Your task to perform on an android device: Add macbook to the cart on bestbuy.com Image 0: 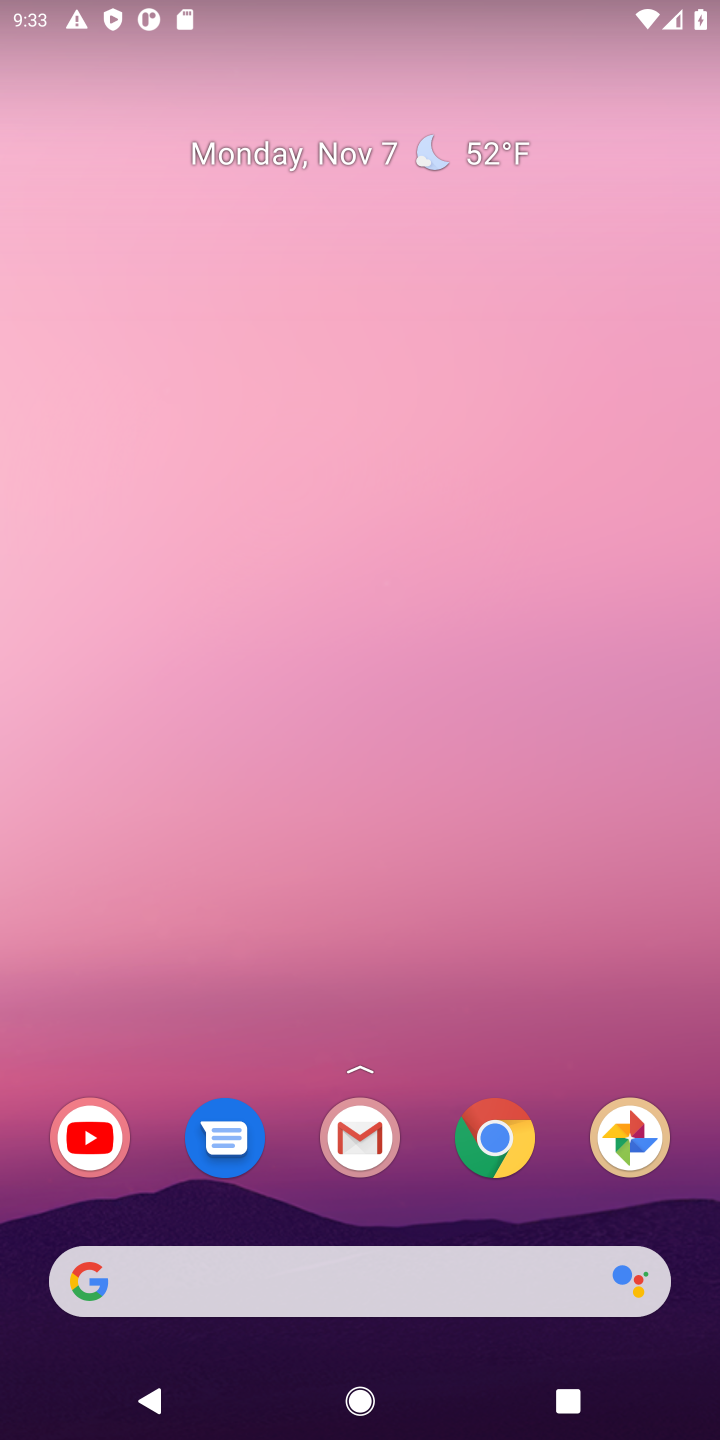
Step 0: click (500, 1162)
Your task to perform on an android device: Add macbook to the cart on bestbuy.com Image 1: 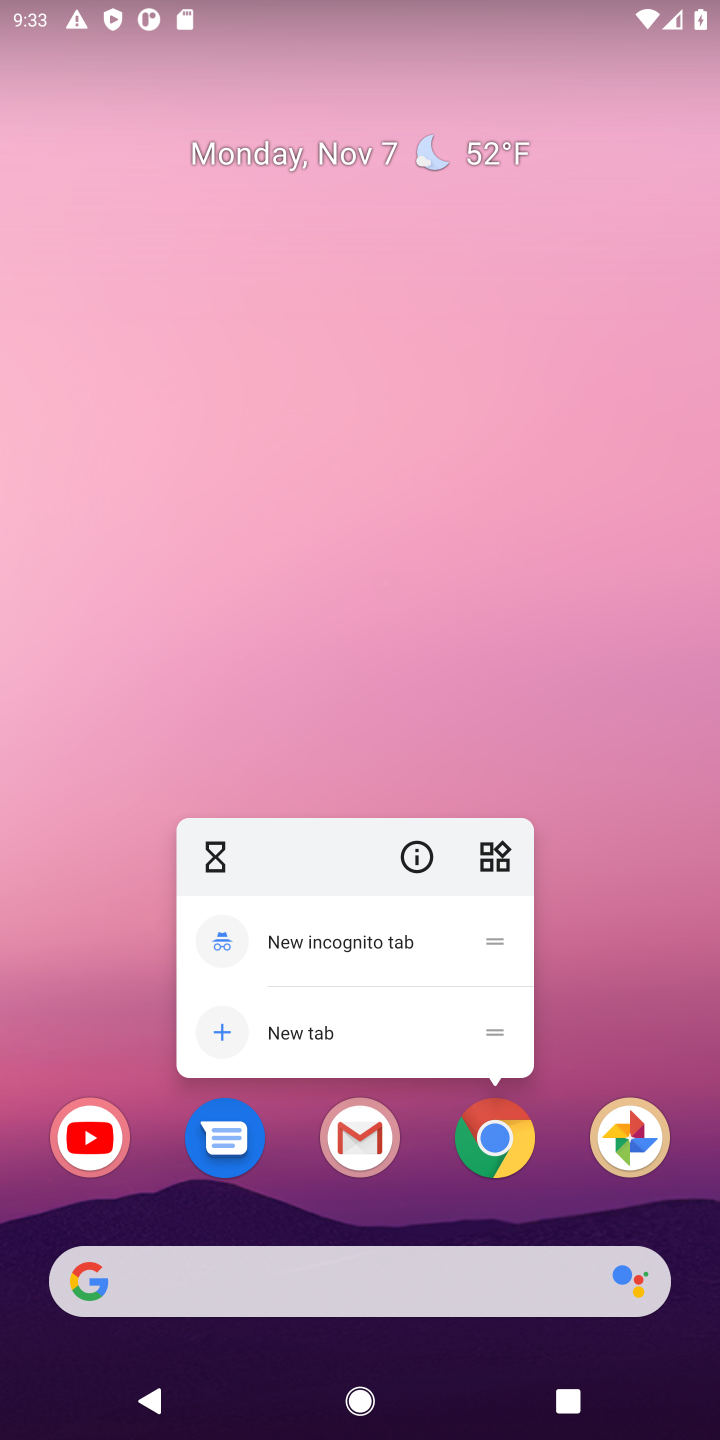
Step 1: click (514, 1127)
Your task to perform on an android device: Add macbook to the cart on bestbuy.com Image 2: 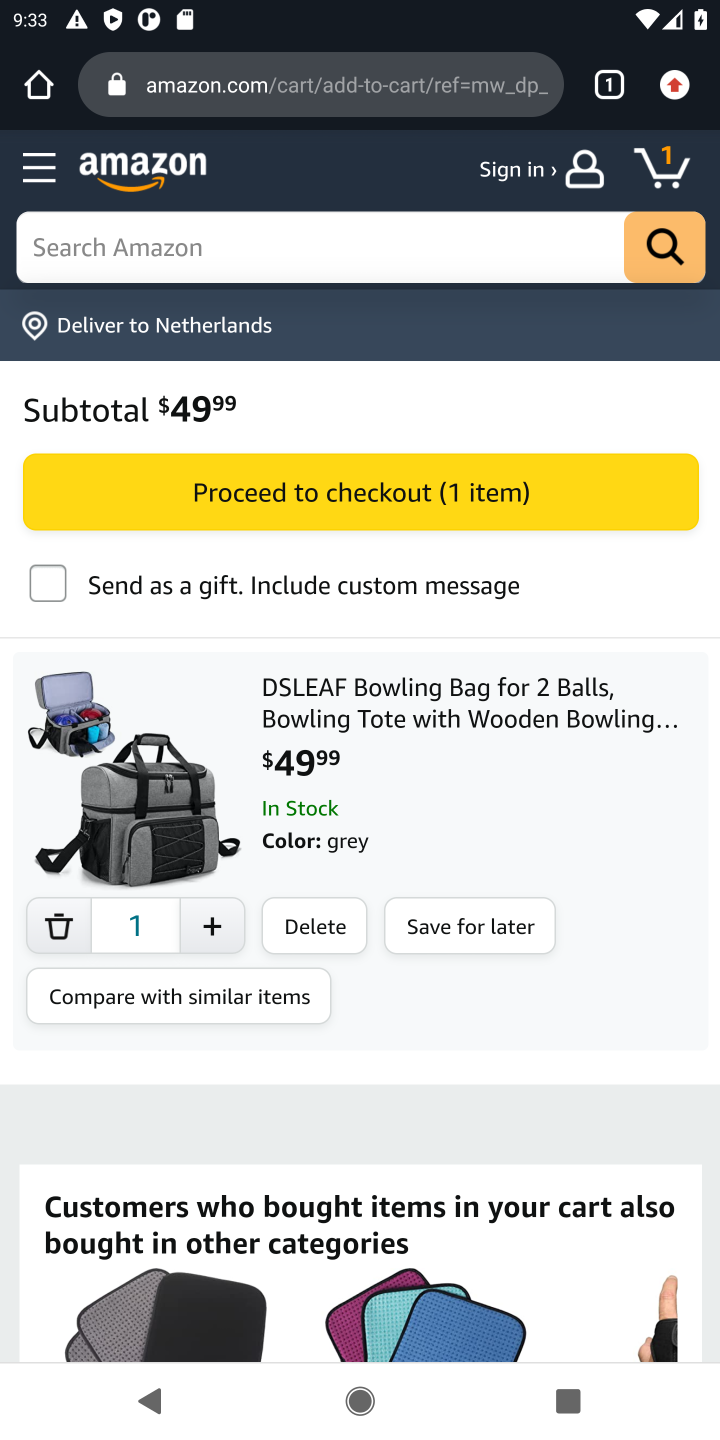
Step 2: click (134, 218)
Your task to perform on an android device: Add macbook to the cart on bestbuy.com Image 3: 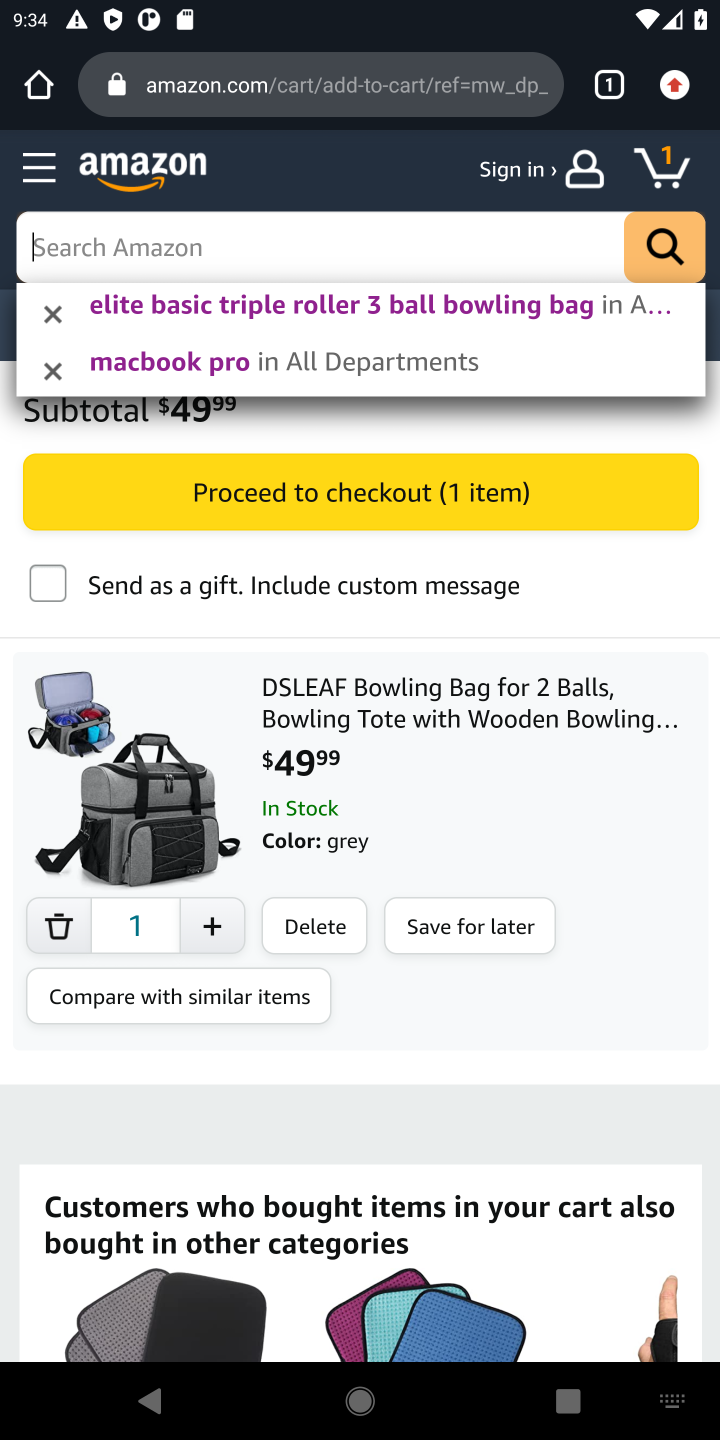
Step 3: type "macbook"
Your task to perform on an android device: Add macbook to the cart on bestbuy.com Image 4: 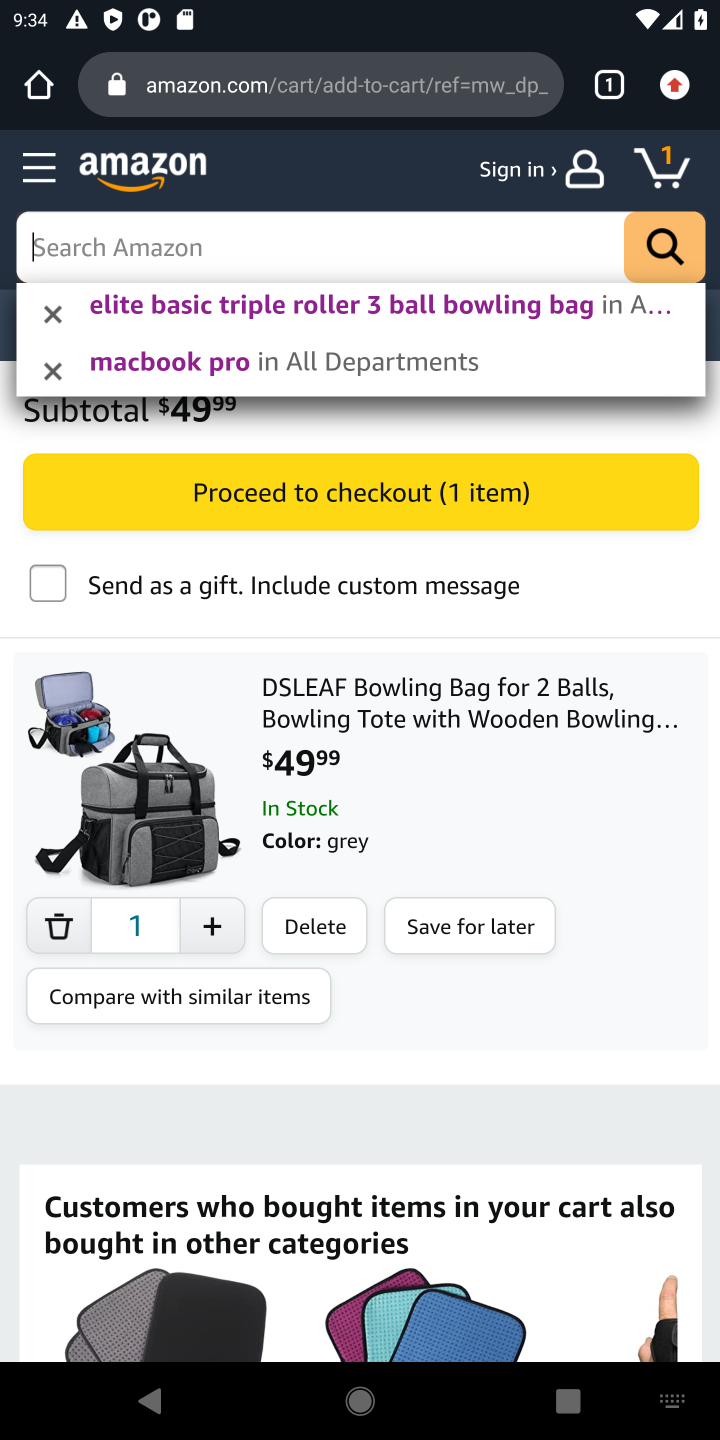
Step 4: click (231, 90)
Your task to perform on an android device: Add macbook to the cart on bestbuy.com Image 5: 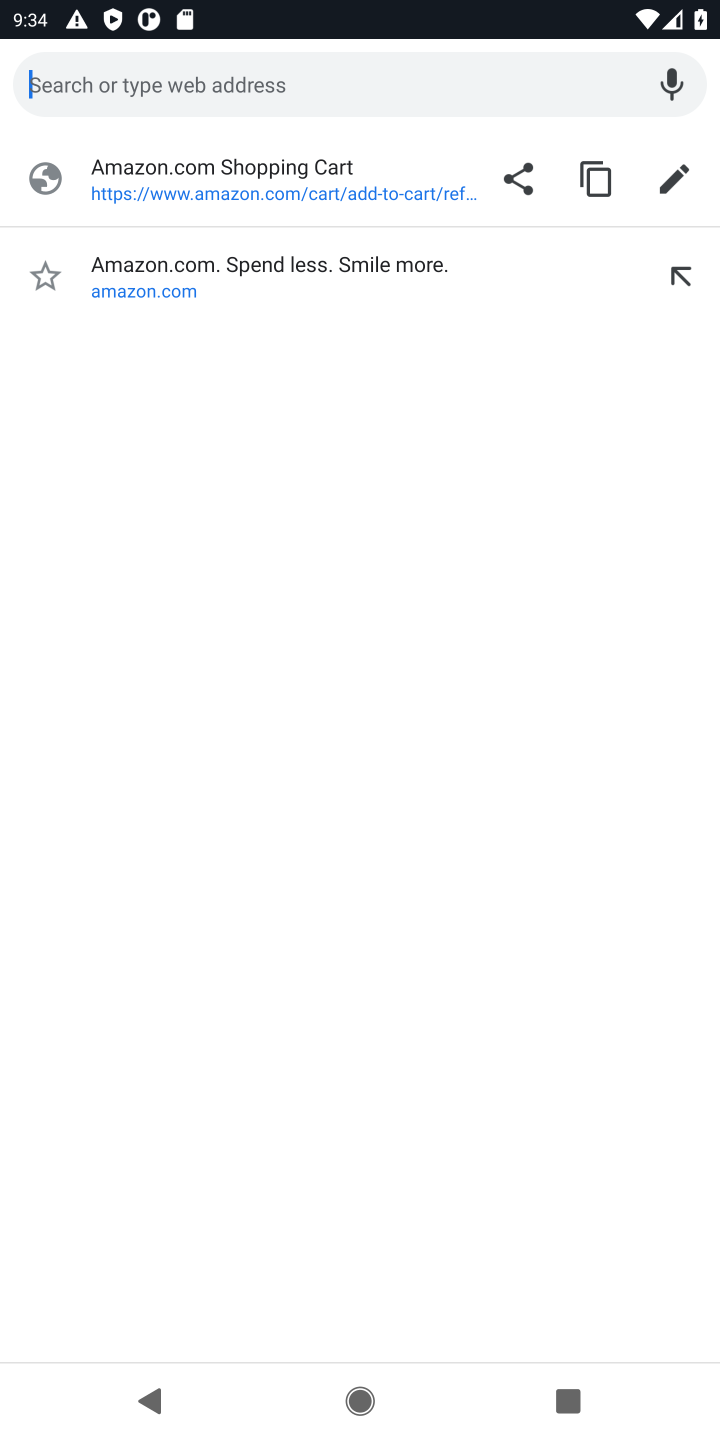
Step 5: type "bestbuy"
Your task to perform on an android device: Add macbook to the cart on bestbuy.com Image 6: 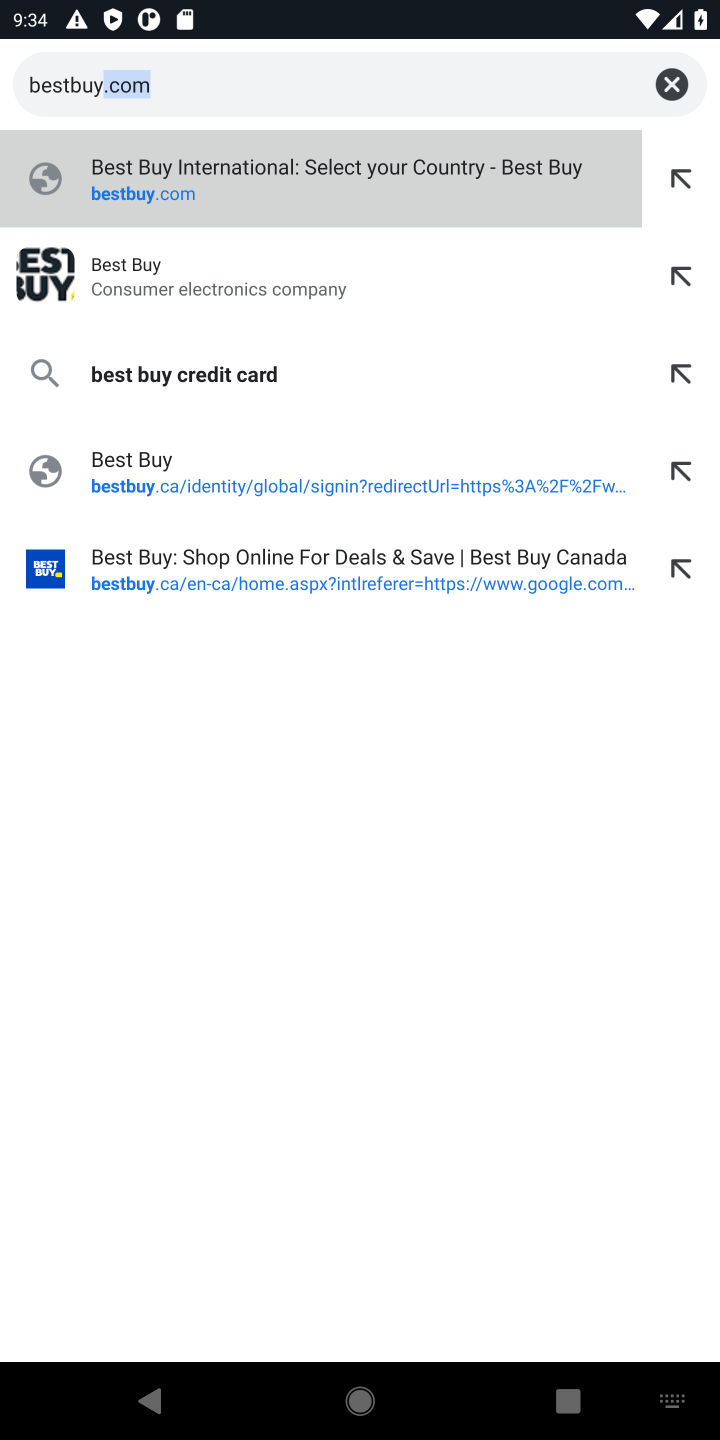
Step 6: type ""
Your task to perform on an android device: Add macbook to the cart on bestbuy.com Image 7: 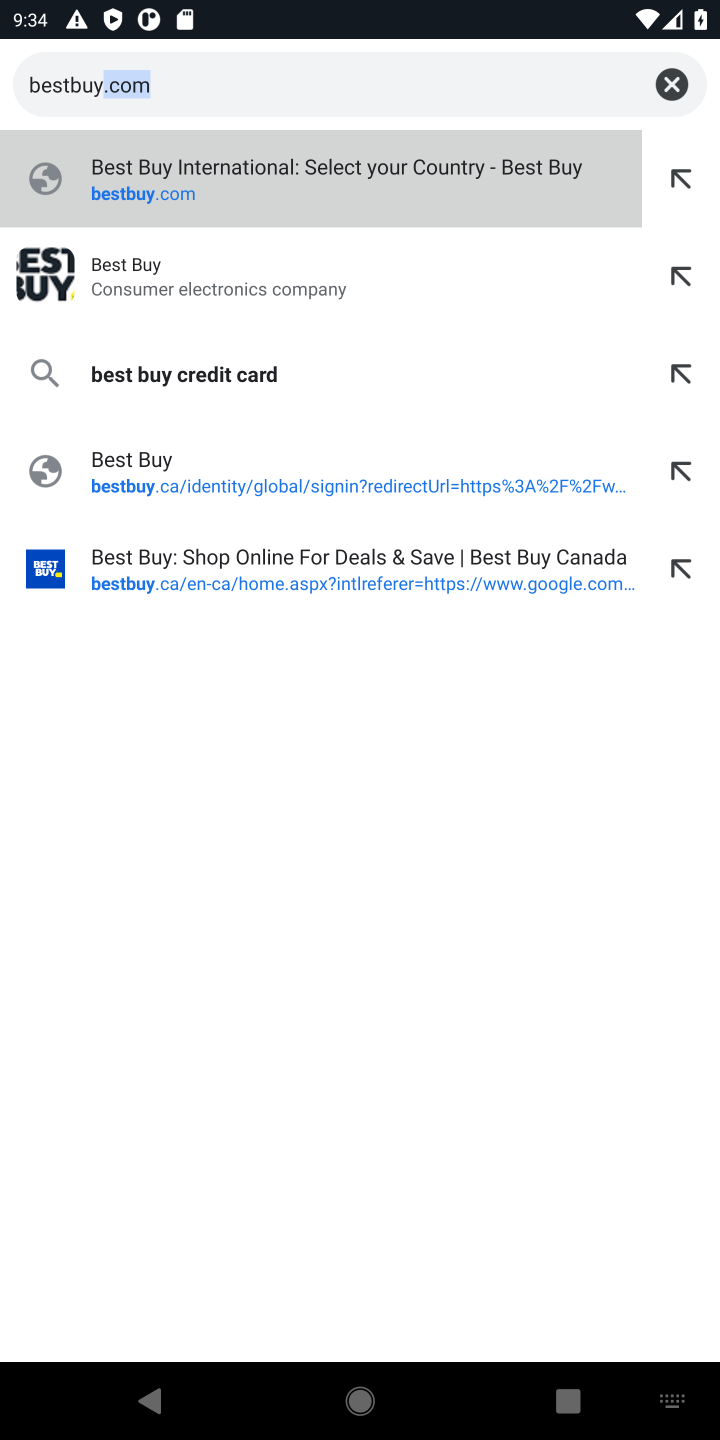
Step 7: click (131, 283)
Your task to perform on an android device: Add macbook to the cart on bestbuy.com Image 8: 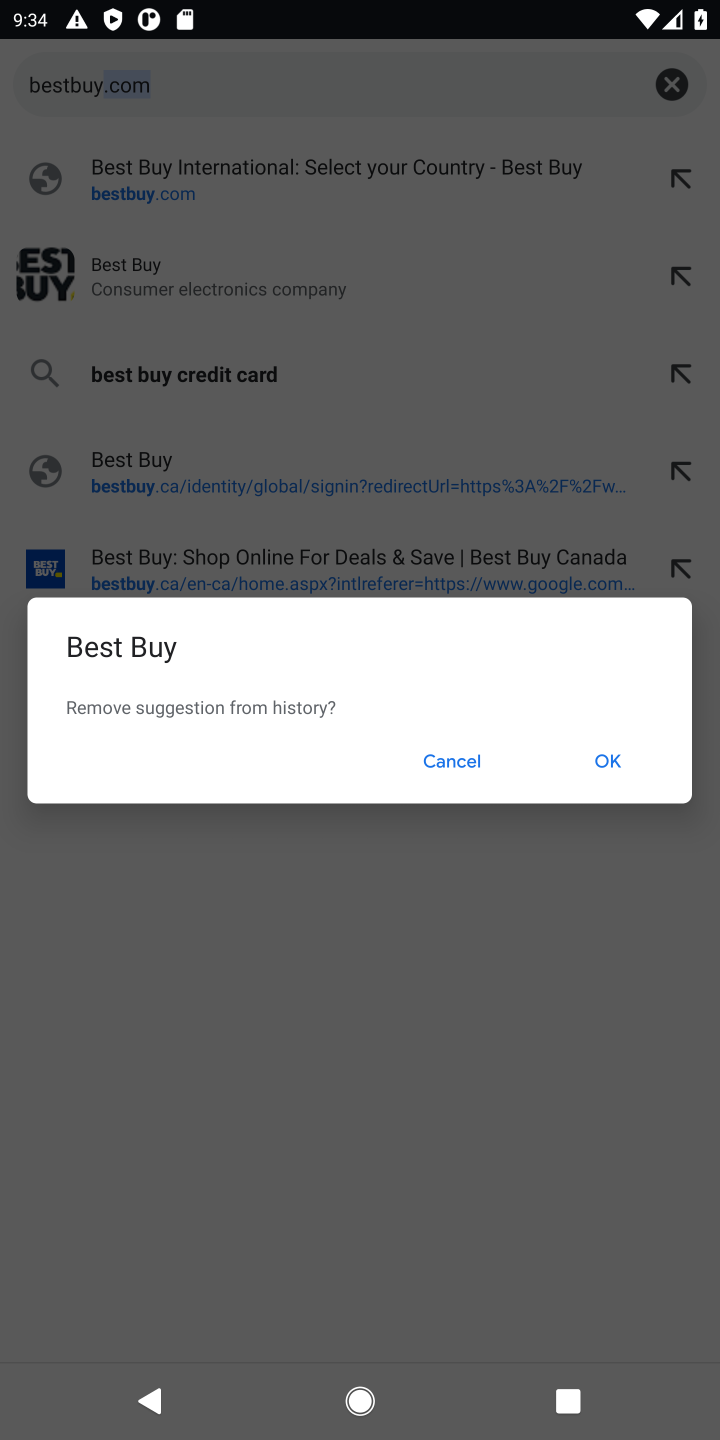
Step 8: click (611, 753)
Your task to perform on an android device: Add macbook to the cart on bestbuy.com Image 9: 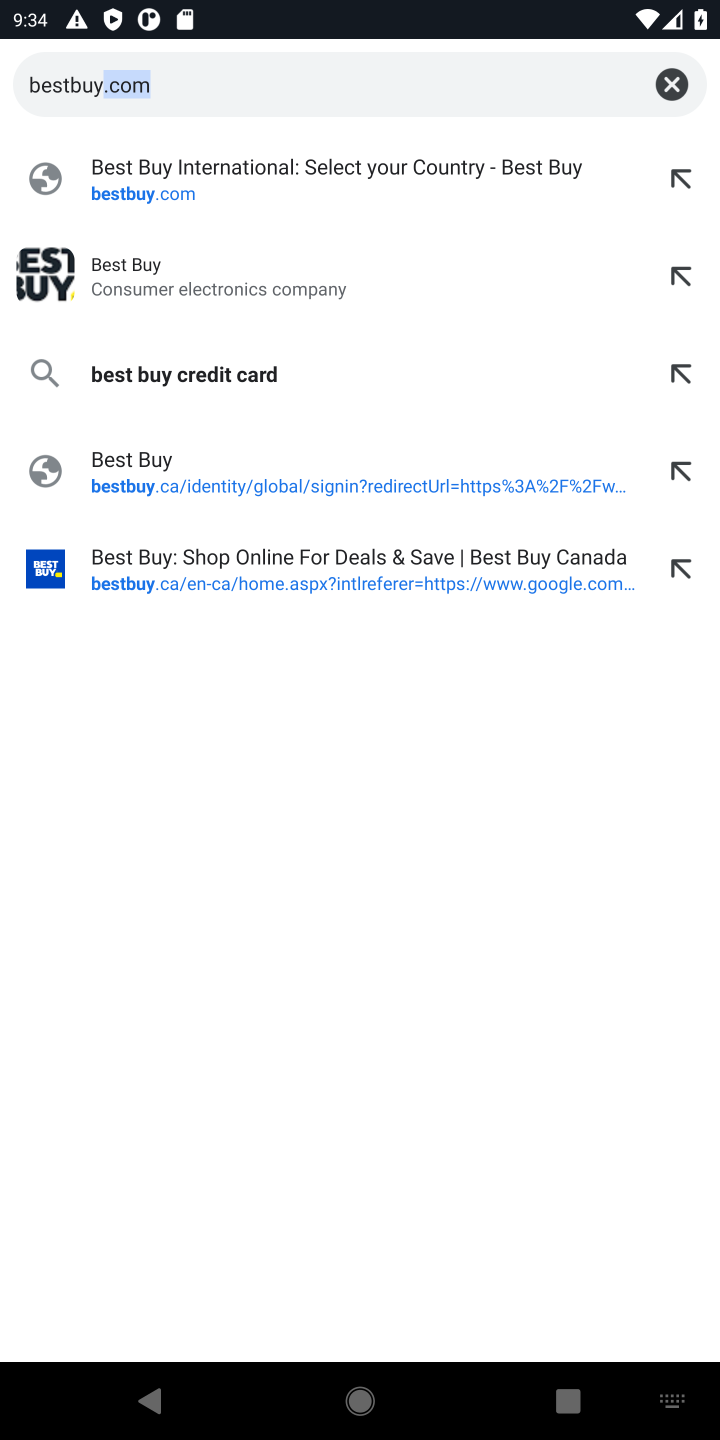
Step 9: click (145, 277)
Your task to perform on an android device: Add macbook to the cart on bestbuy.com Image 10: 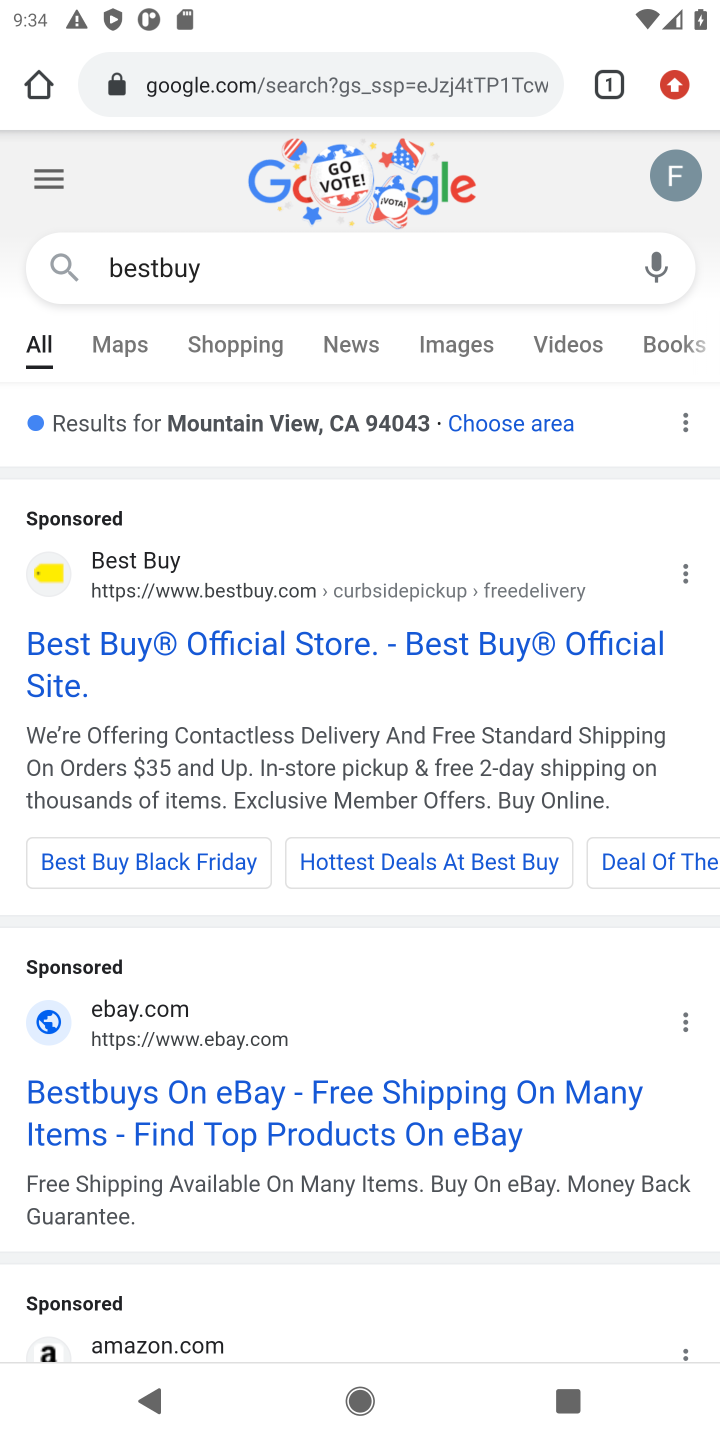
Step 10: click (212, 631)
Your task to perform on an android device: Add macbook to the cart on bestbuy.com Image 11: 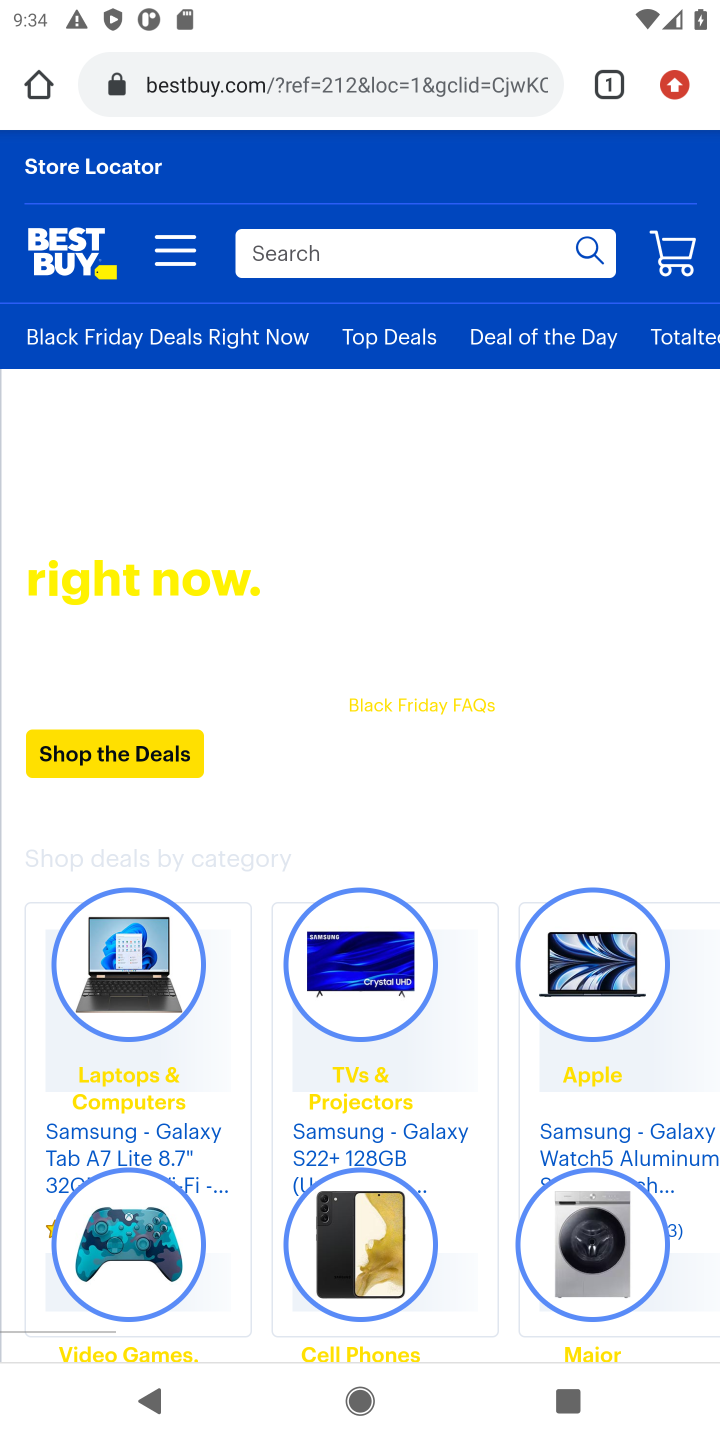
Step 11: click (301, 261)
Your task to perform on an android device: Add macbook to the cart on bestbuy.com Image 12: 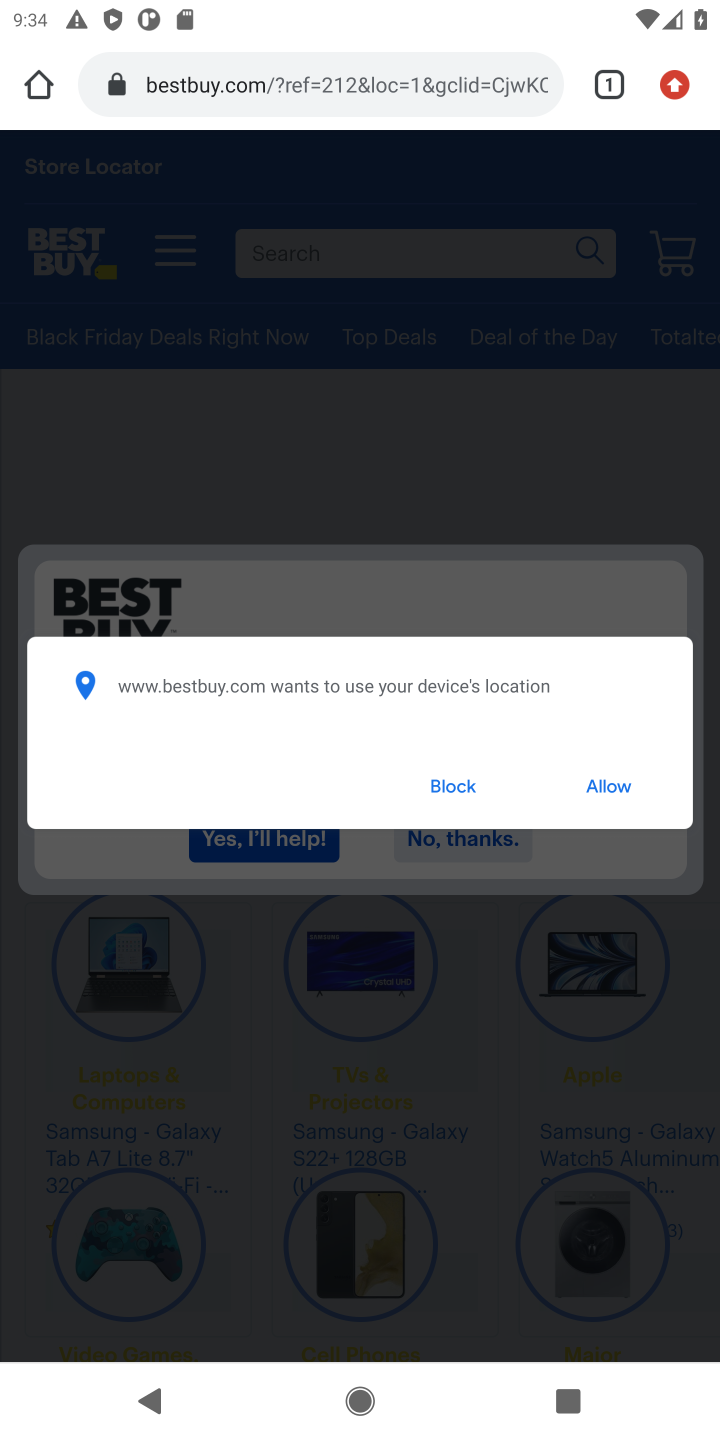
Step 12: type "macbook"
Your task to perform on an android device: Add macbook to the cart on bestbuy.com Image 13: 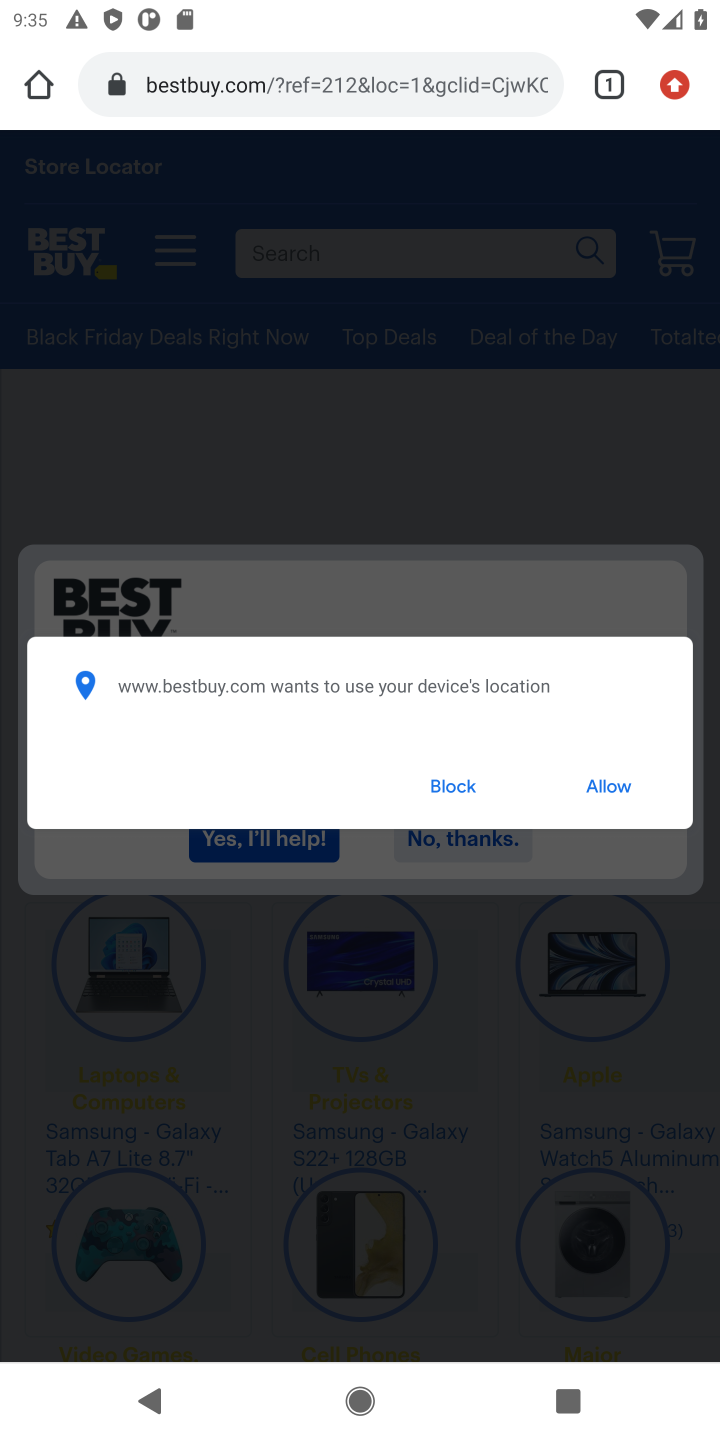
Step 13: click (621, 789)
Your task to perform on an android device: Add macbook to the cart on bestbuy.com Image 14: 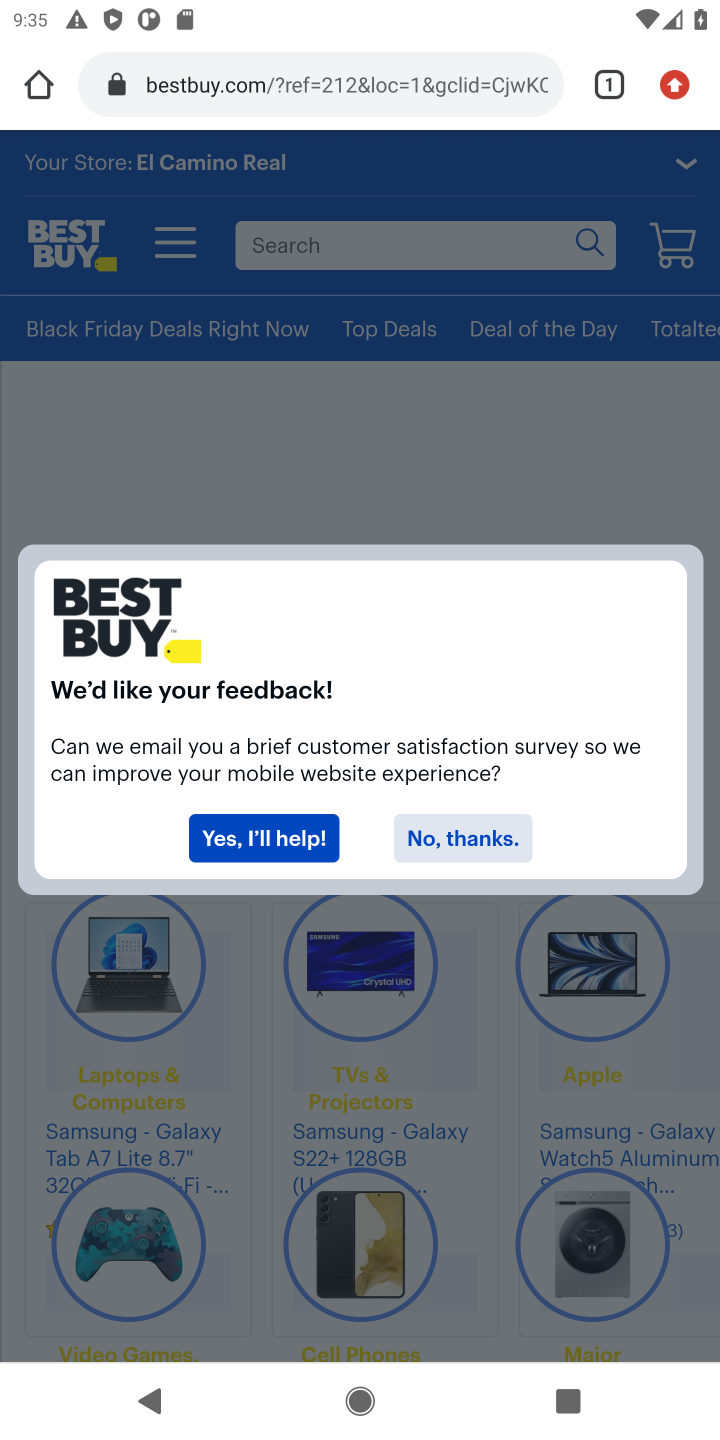
Step 14: click (440, 843)
Your task to perform on an android device: Add macbook to the cart on bestbuy.com Image 15: 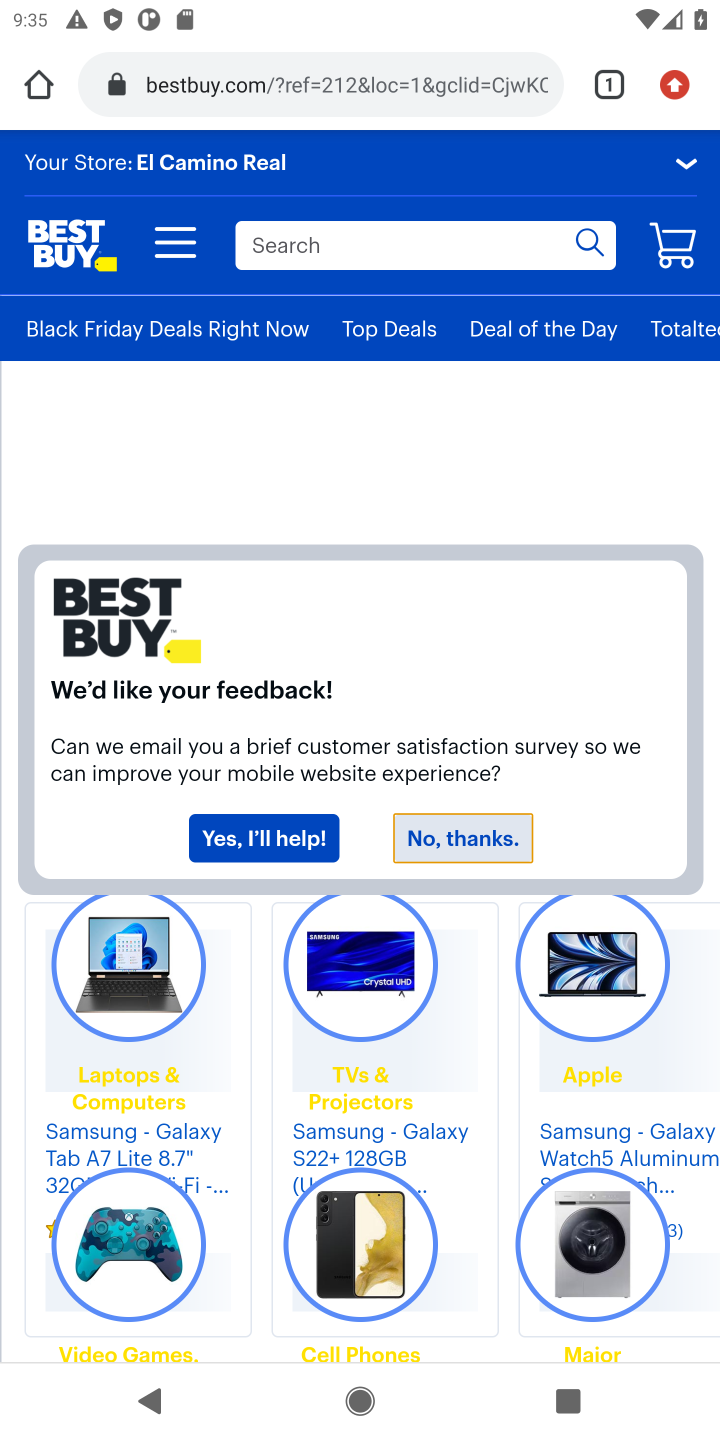
Step 15: click (451, 841)
Your task to perform on an android device: Add macbook to the cart on bestbuy.com Image 16: 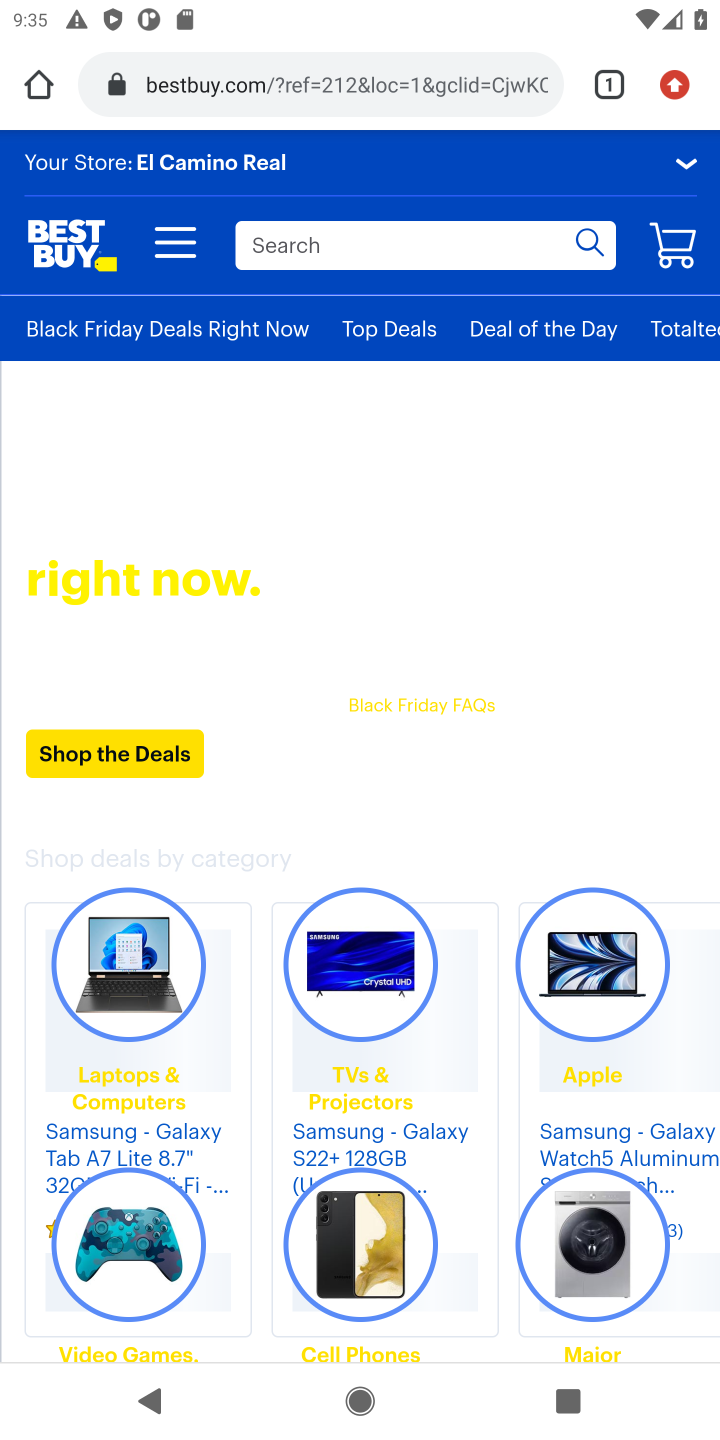
Step 16: click (304, 248)
Your task to perform on an android device: Add macbook to the cart on bestbuy.com Image 17: 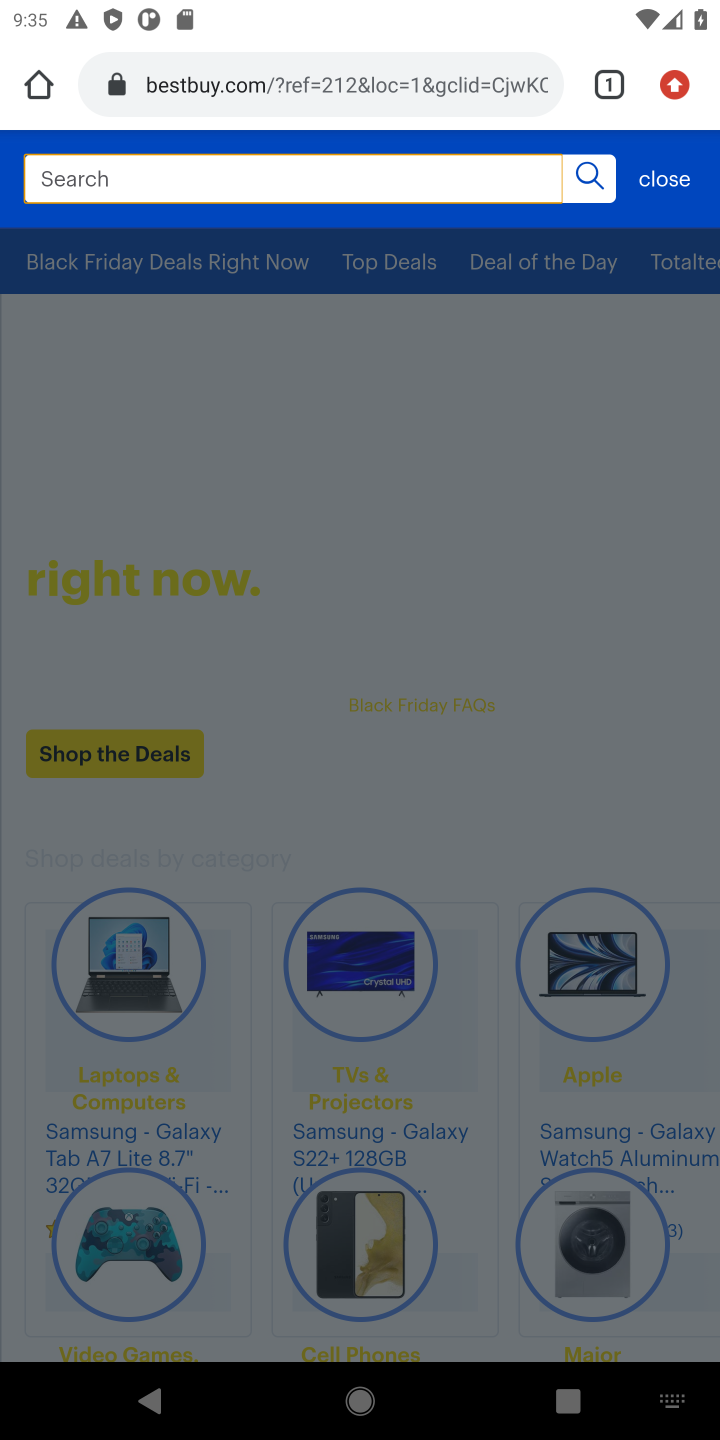
Step 17: type "macbook"
Your task to perform on an android device: Add macbook to the cart on bestbuy.com Image 18: 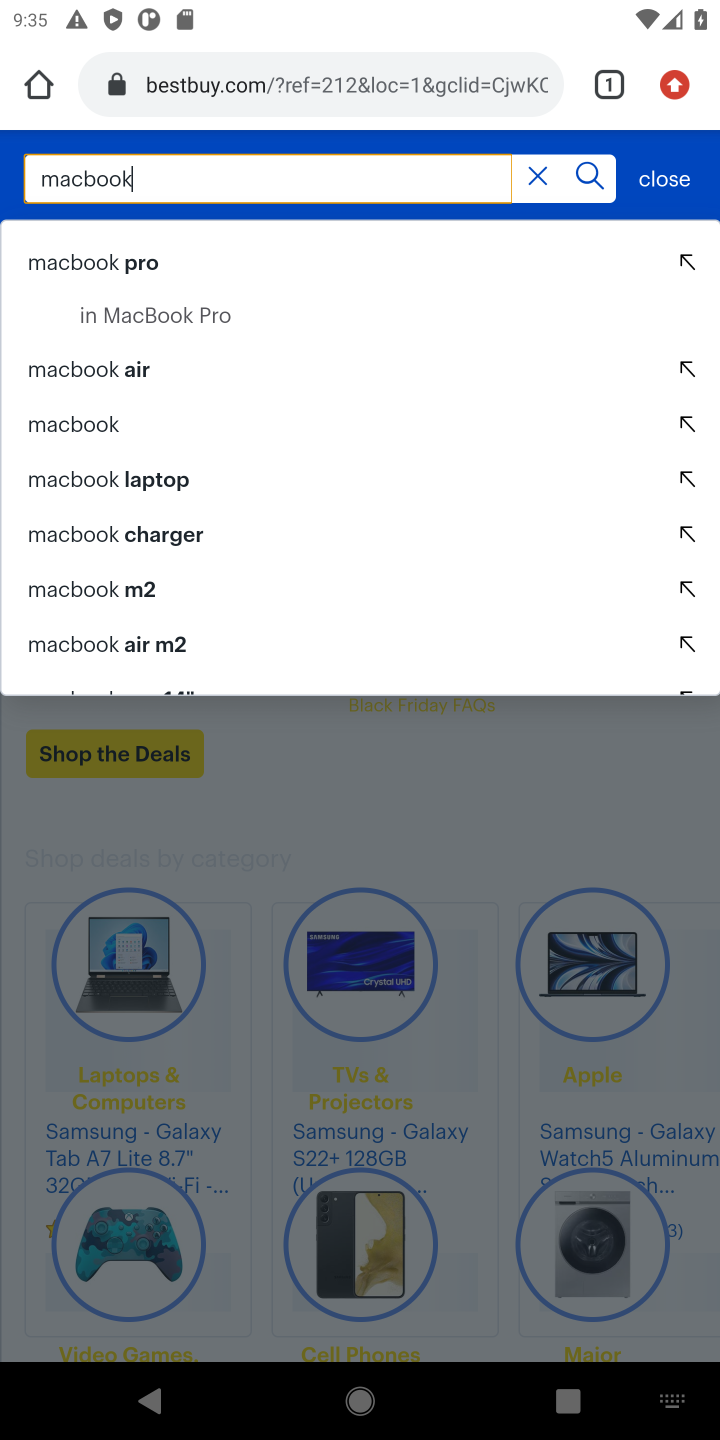
Step 18: click (76, 432)
Your task to perform on an android device: Add macbook to the cart on bestbuy.com Image 19: 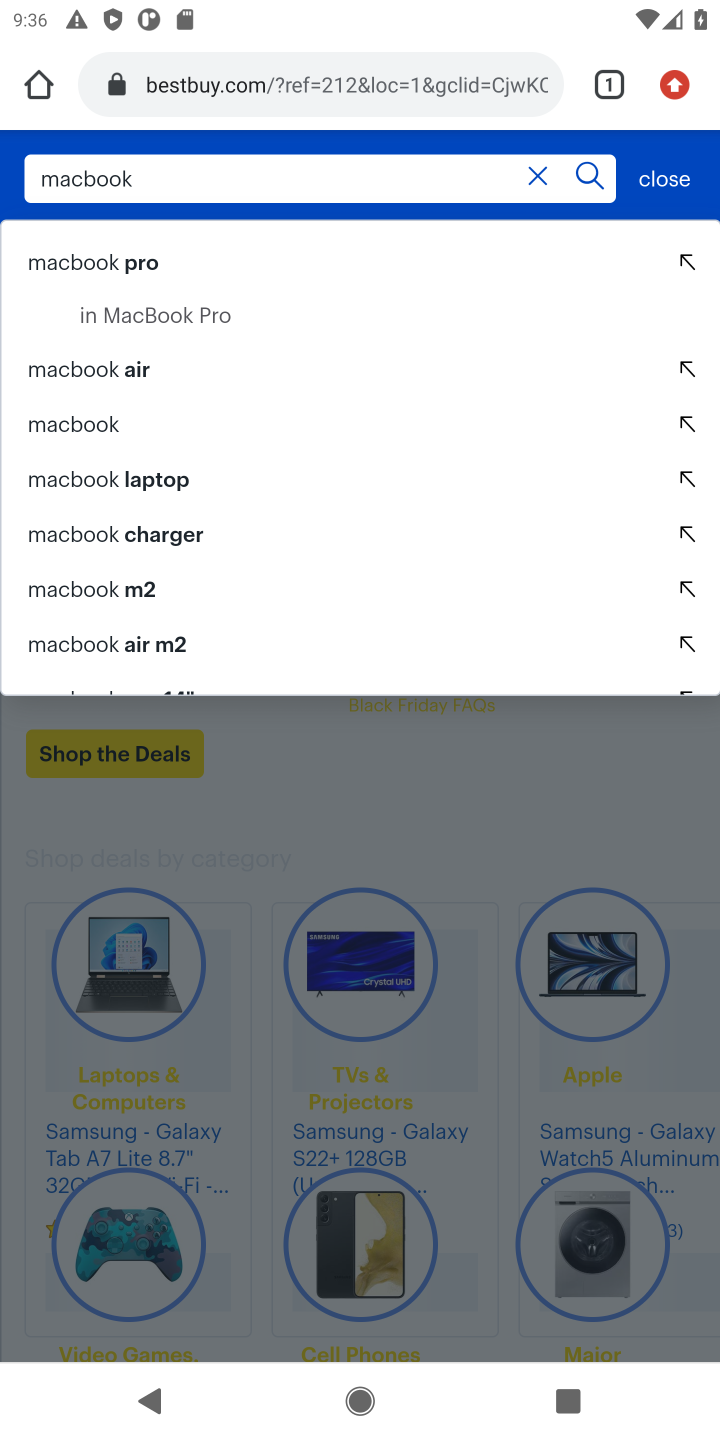
Step 19: click (84, 259)
Your task to perform on an android device: Add macbook to the cart on bestbuy.com Image 20: 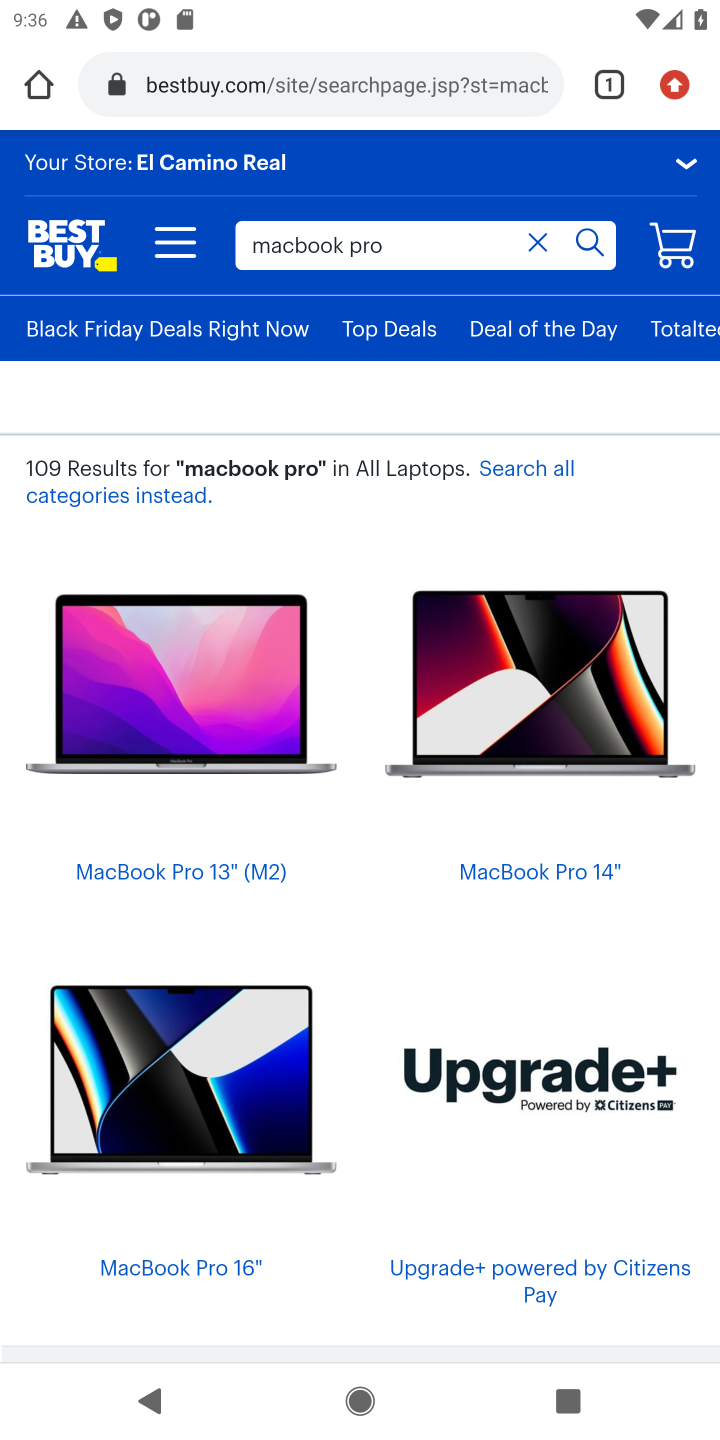
Step 20: click (104, 717)
Your task to perform on an android device: Add macbook to the cart on bestbuy.com Image 21: 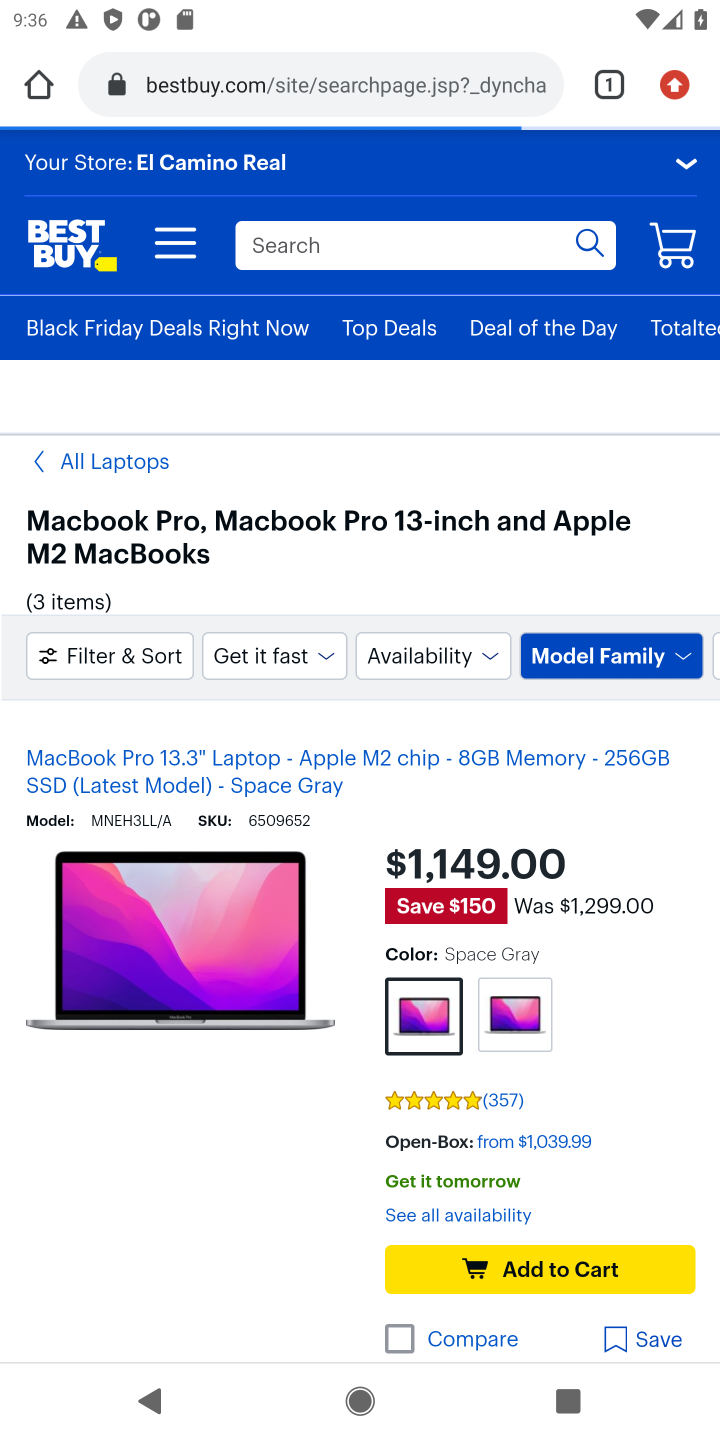
Step 21: drag from (254, 785) to (253, 450)
Your task to perform on an android device: Add macbook to the cart on bestbuy.com Image 22: 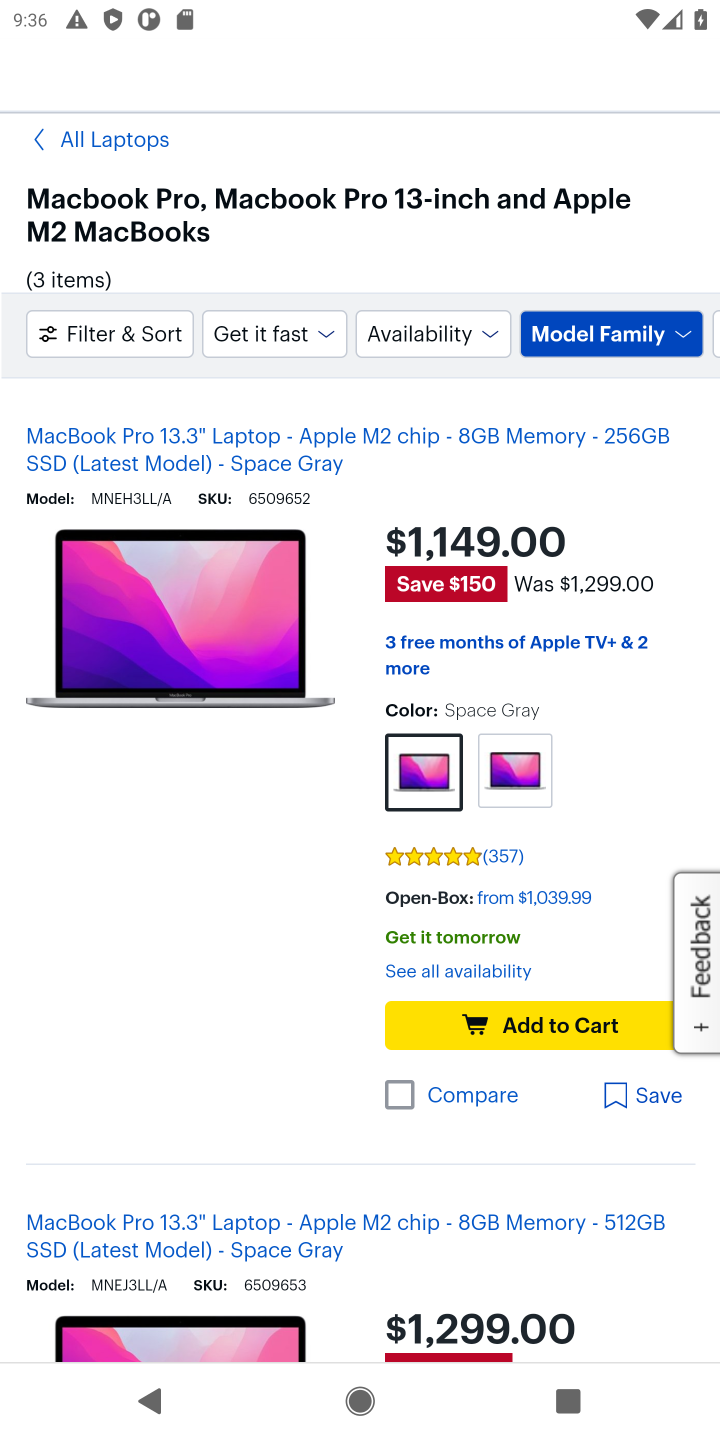
Step 22: click (550, 1026)
Your task to perform on an android device: Add macbook to the cart on bestbuy.com Image 23: 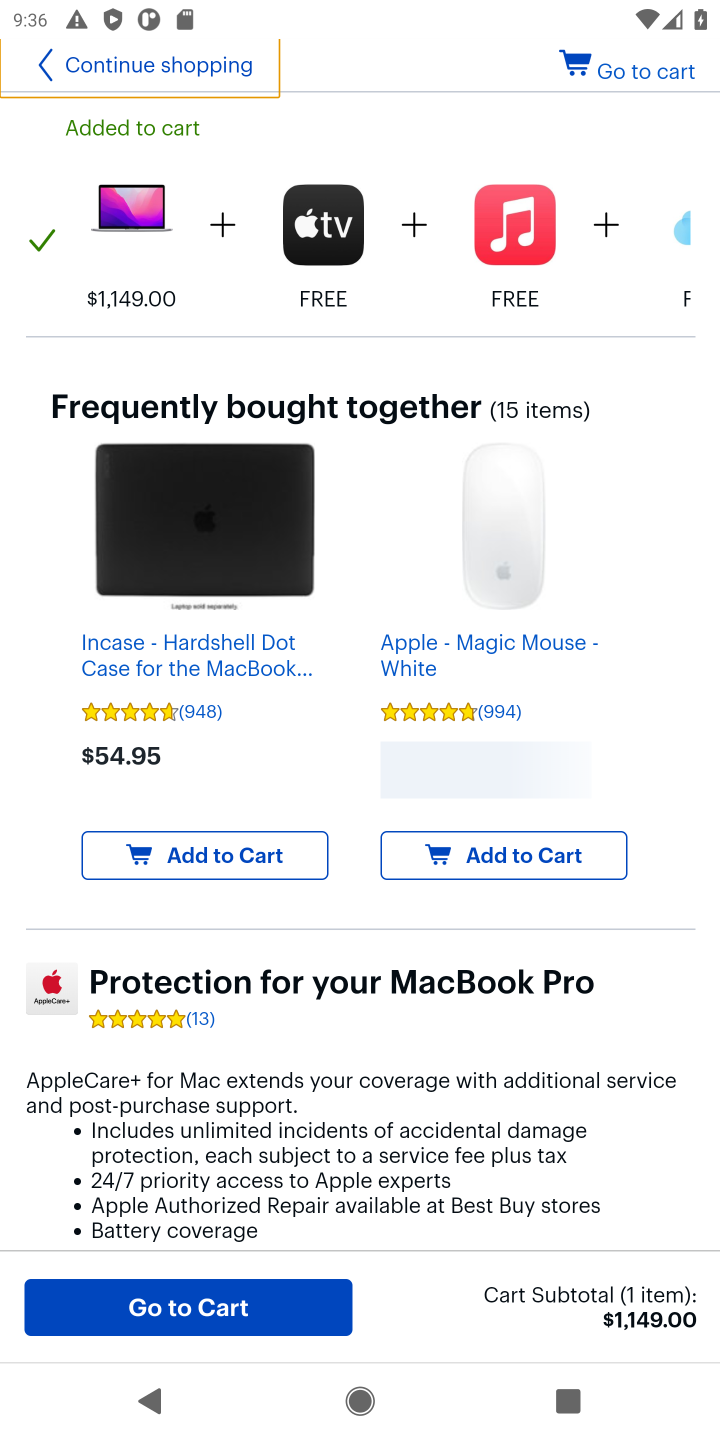
Step 23: click (283, 1306)
Your task to perform on an android device: Add macbook to the cart on bestbuy.com Image 24: 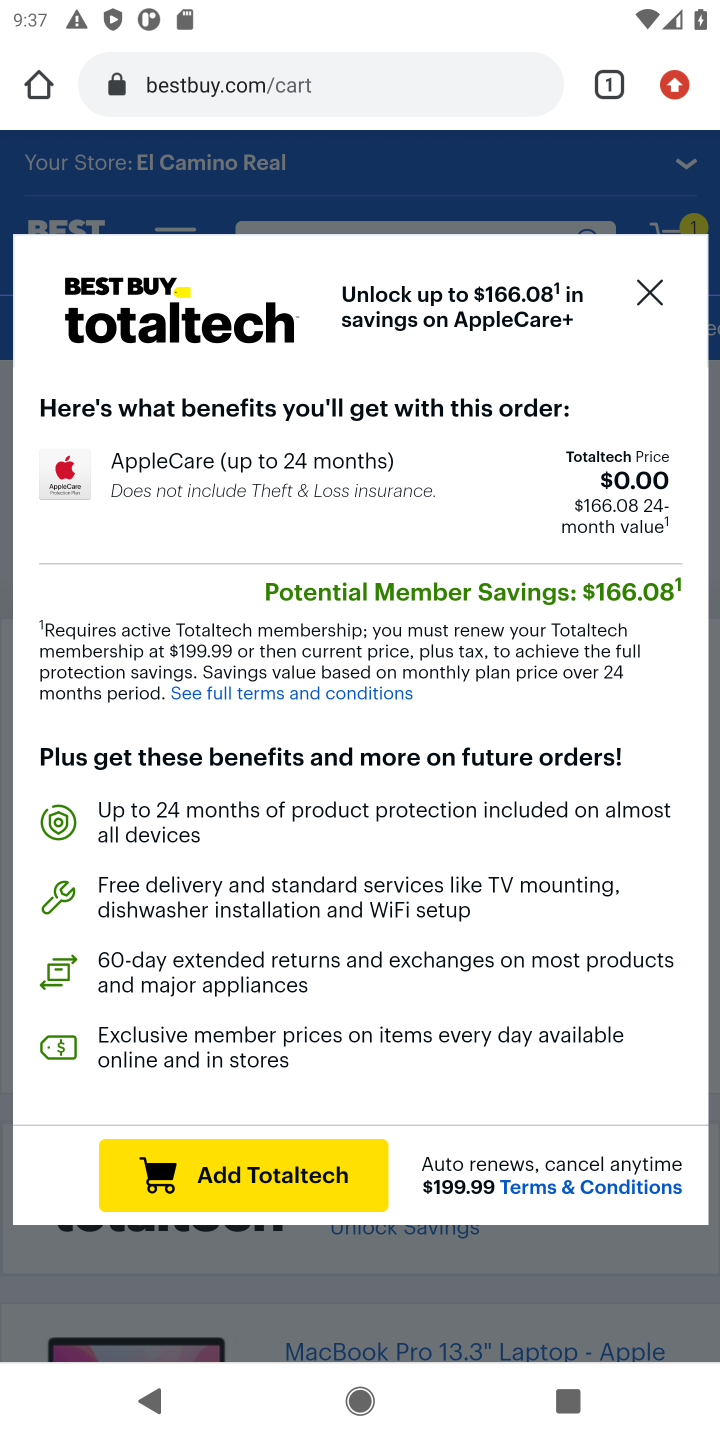
Step 24: task complete